Your task to perform on an android device: turn off smart reply in the gmail app Image 0: 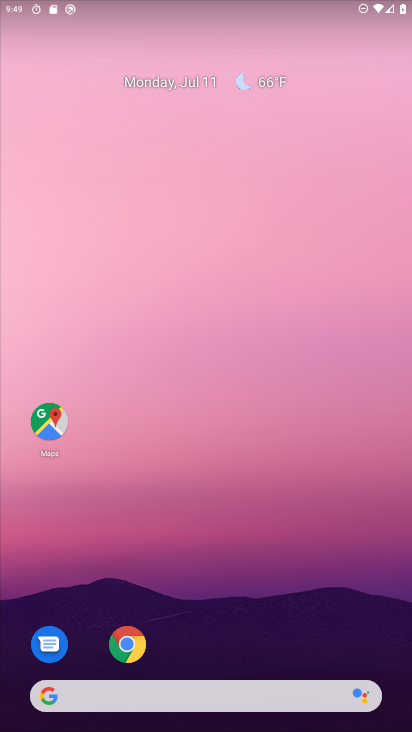
Step 0: drag from (292, 519) to (204, 91)
Your task to perform on an android device: turn off smart reply in the gmail app Image 1: 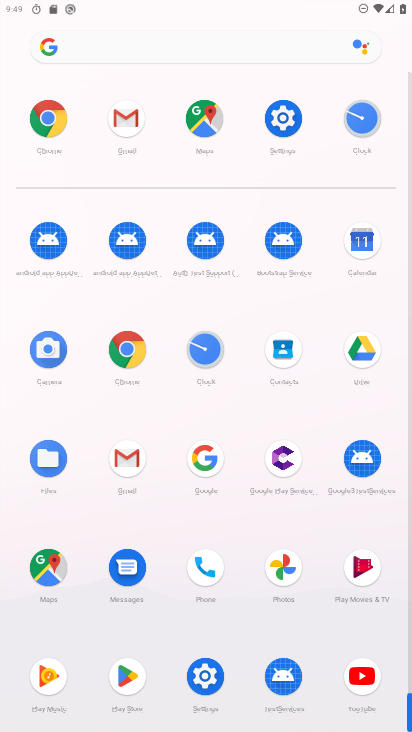
Step 1: click (119, 119)
Your task to perform on an android device: turn off smart reply in the gmail app Image 2: 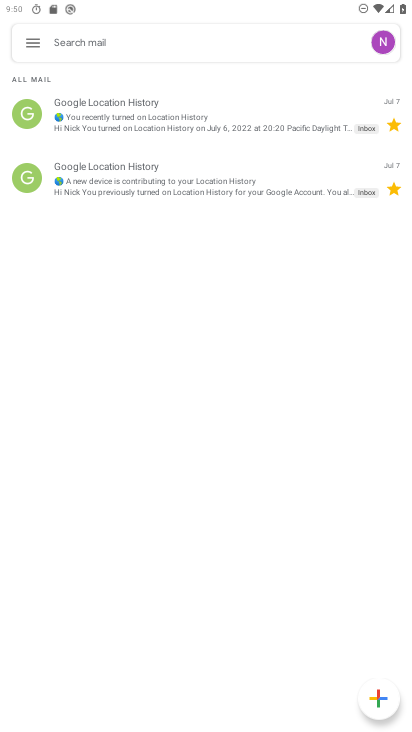
Step 2: click (36, 40)
Your task to perform on an android device: turn off smart reply in the gmail app Image 3: 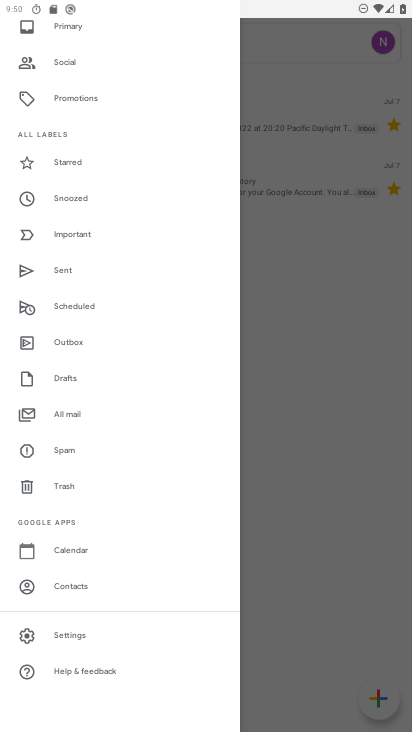
Step 3: click (83, 629)
Your task to perform on an android device: turn off smart reply in the gmail app Image 4: 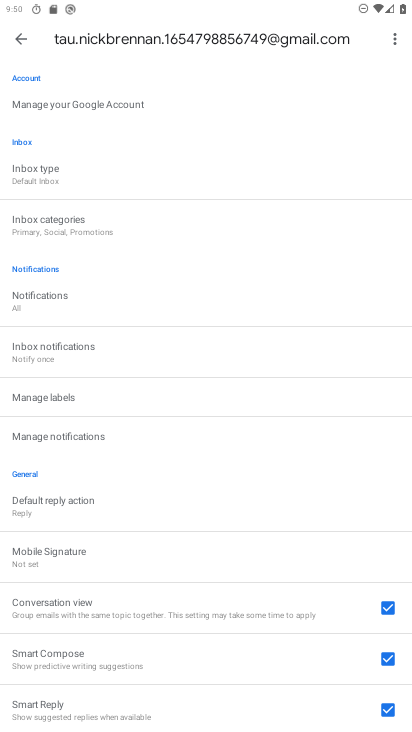
Step 4: click (390, 707)
Your task to perform on an android device: turn off smart reply in the gmail app Image 5: 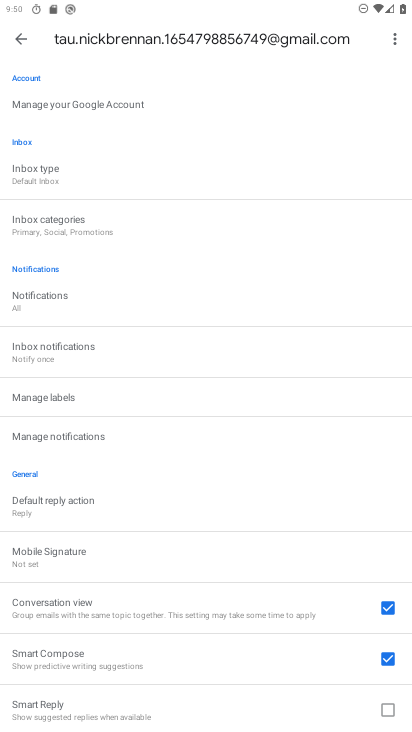
Step 5: task complete